Your task to perform on an android device: delete the emails in spam in the gmail app Image 0: 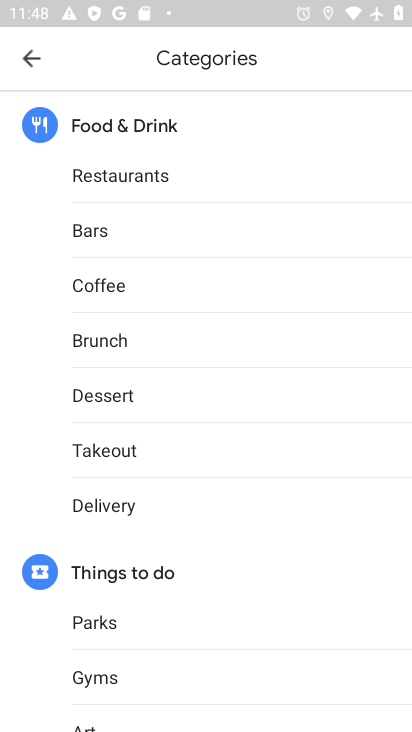
Step 0: press home button
Your task to perform on an android device: delete the emails in spam in the gmail app Image 1: 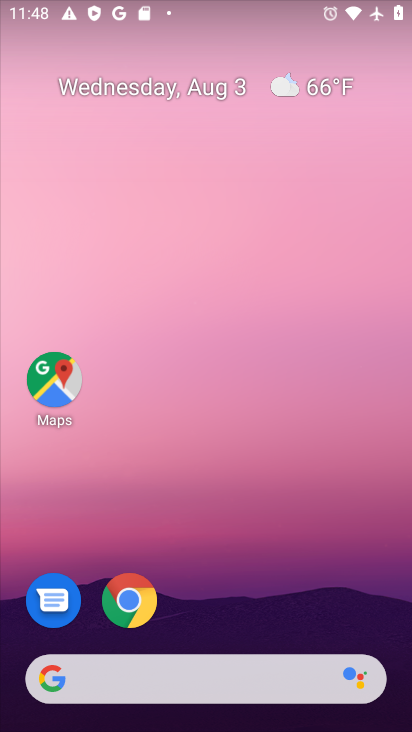
Step 1: drag from (168, 642) to (144, 52)
Your task to perform on an android device: delete the emails in spam in the gmail app Image 2: 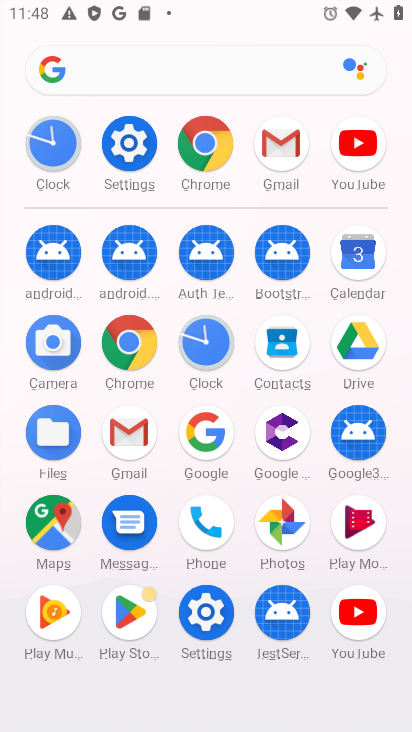
Step 2: click (122, 437)
Your task to perform on an android device: delete the emails in spam in the gmail app Image 3: 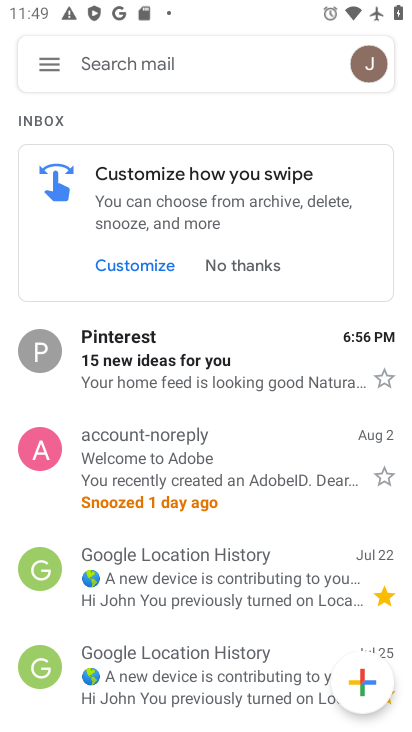
Step 3: click (62, 62)
Your task to perform on an android device: delete the emails in spam in the gmail app Image 4: 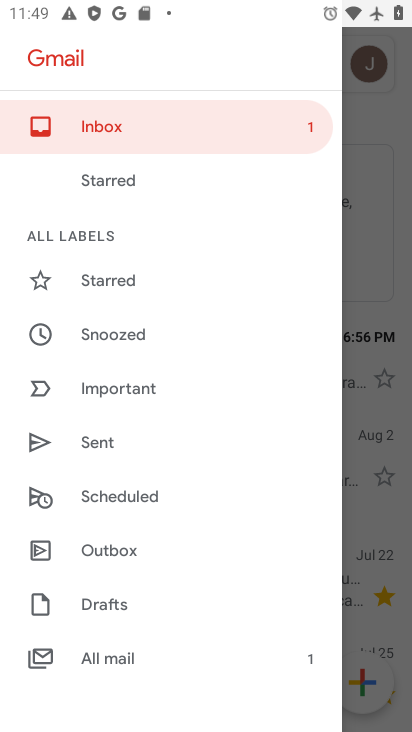
Step 4: drag from (84, 604) to (79, 294)
Your task to perform on an android device: delete the emails in spam in the gmail app Image 5: 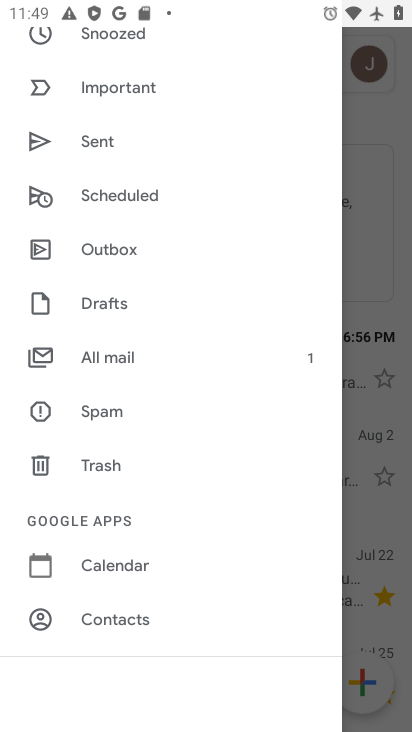
Step 5: click (88, 406)
Your task to perform on an android device: delete the emails in spam in the gmail app Image 6: 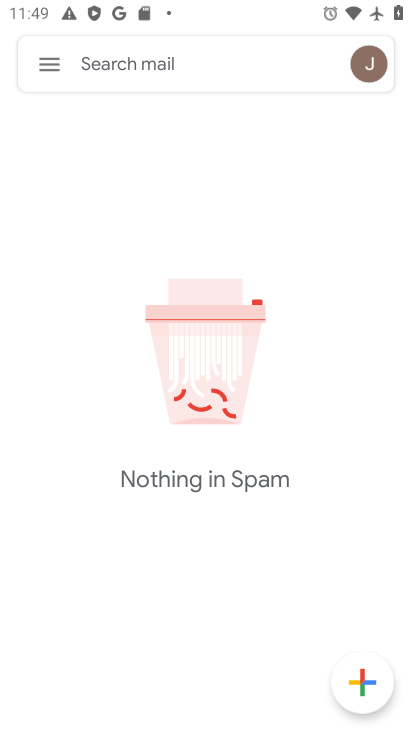
Step 6: task complete